Your task to perform on an android device: Open Google Chrome Image 0: 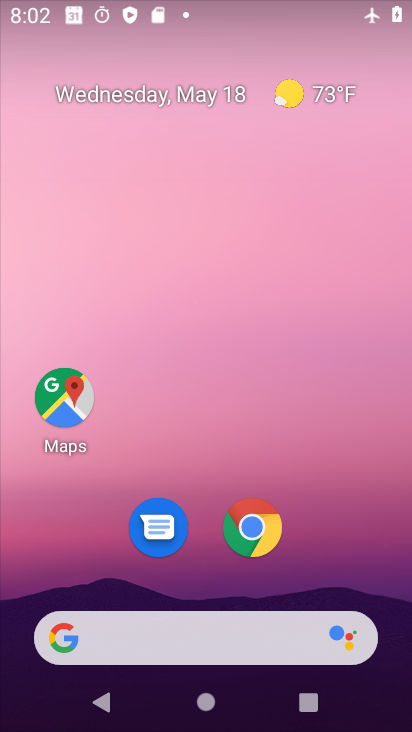
Step 0: click (246, 533)
Your task to perform on an android device: Open Google Chrome Image 1: 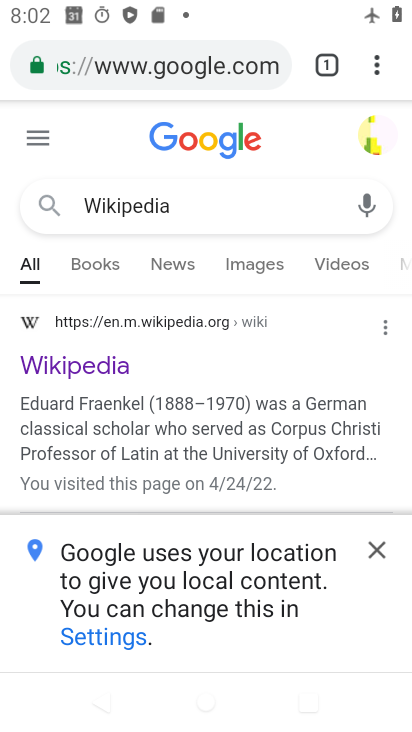
Step 1: task complete